Your task to perform on an android device: Open Android settings Image 0: 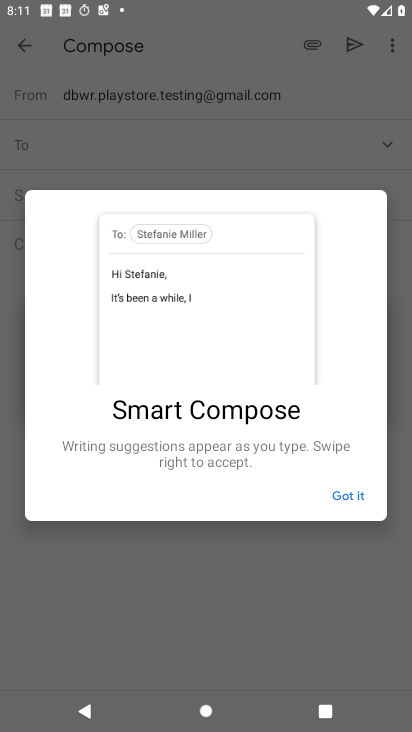
Step 0: press home button
Your task to perform on an android device: Open Android settings Image 1: 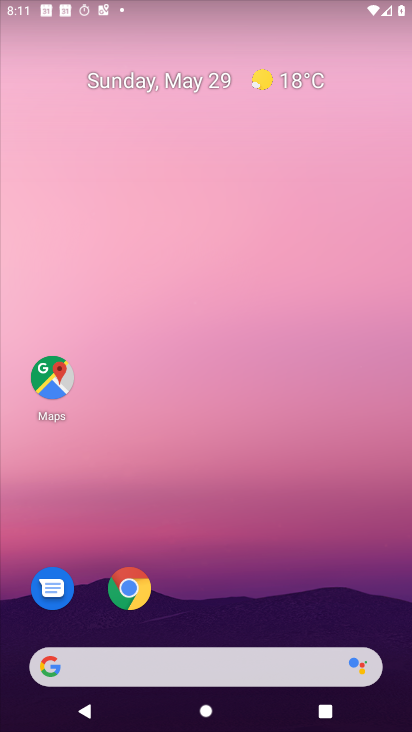
Step 1: drag from (250, 579) to (245, 196)
Your task to perform on an android device: Open Android settings Image 2: 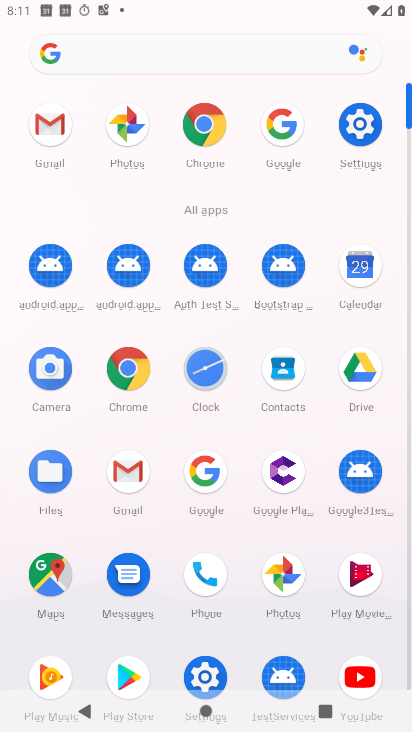
Step 2: click (364, 123)
Your task to perform on an android device: Open Android settings Image 3: 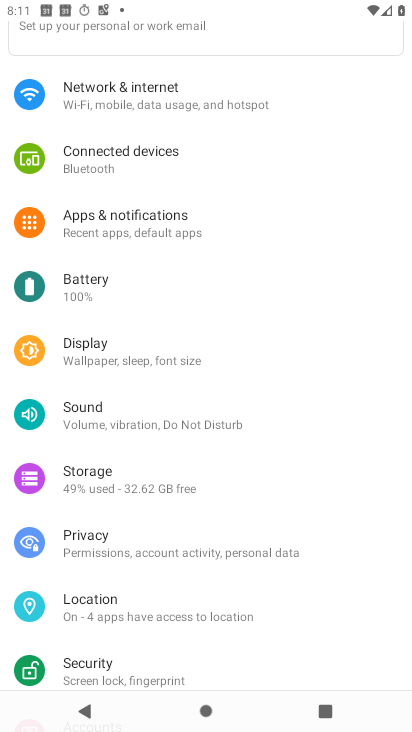
Step 3: task complete